Your task to perform on an android device: What's on the menu at Domino's? Image 0: 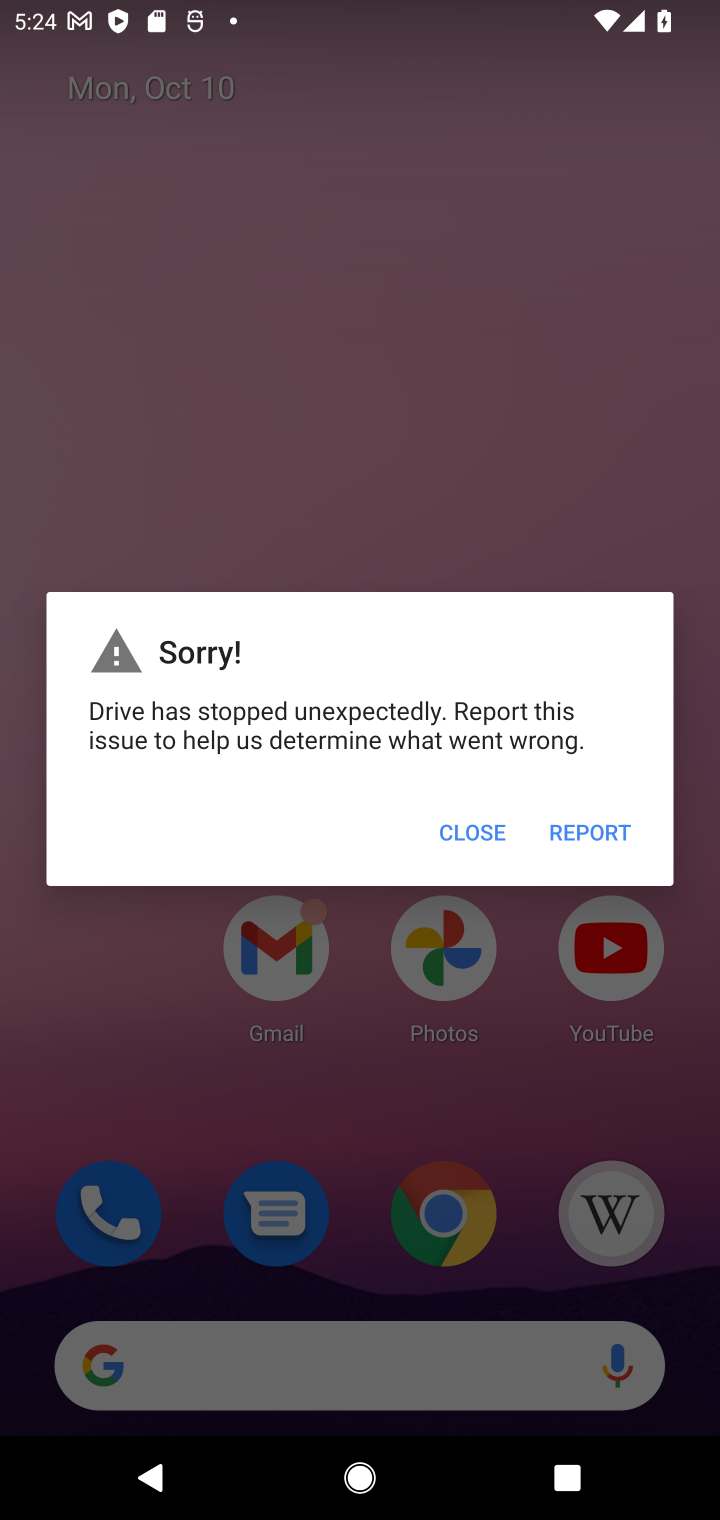
Step 0: click (470, 829)
Your task to perform on an android device: What's on the menu at Domino's? Image 1: 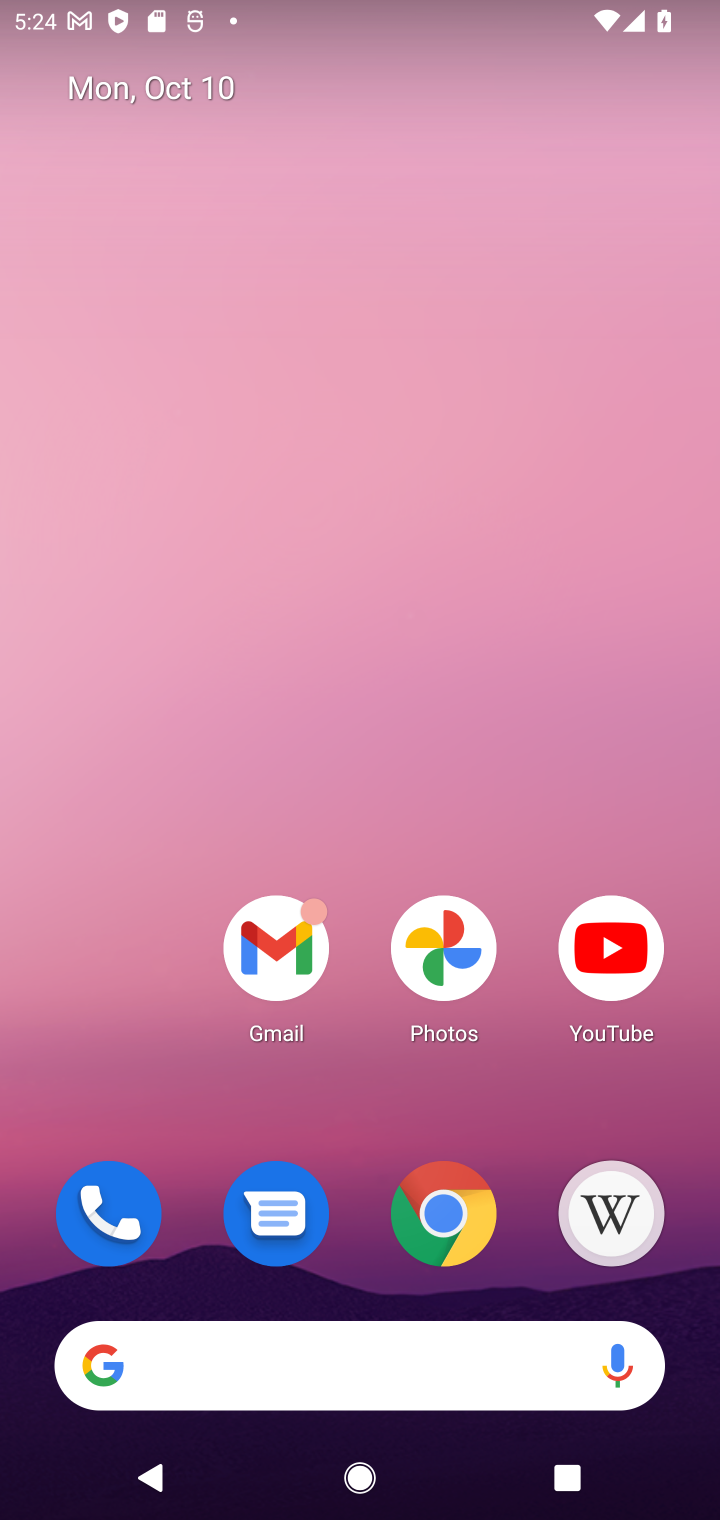
Step 1: click (470, 833)
Your task to perform on an android device: What's on the menu at Domino's? Image 2: 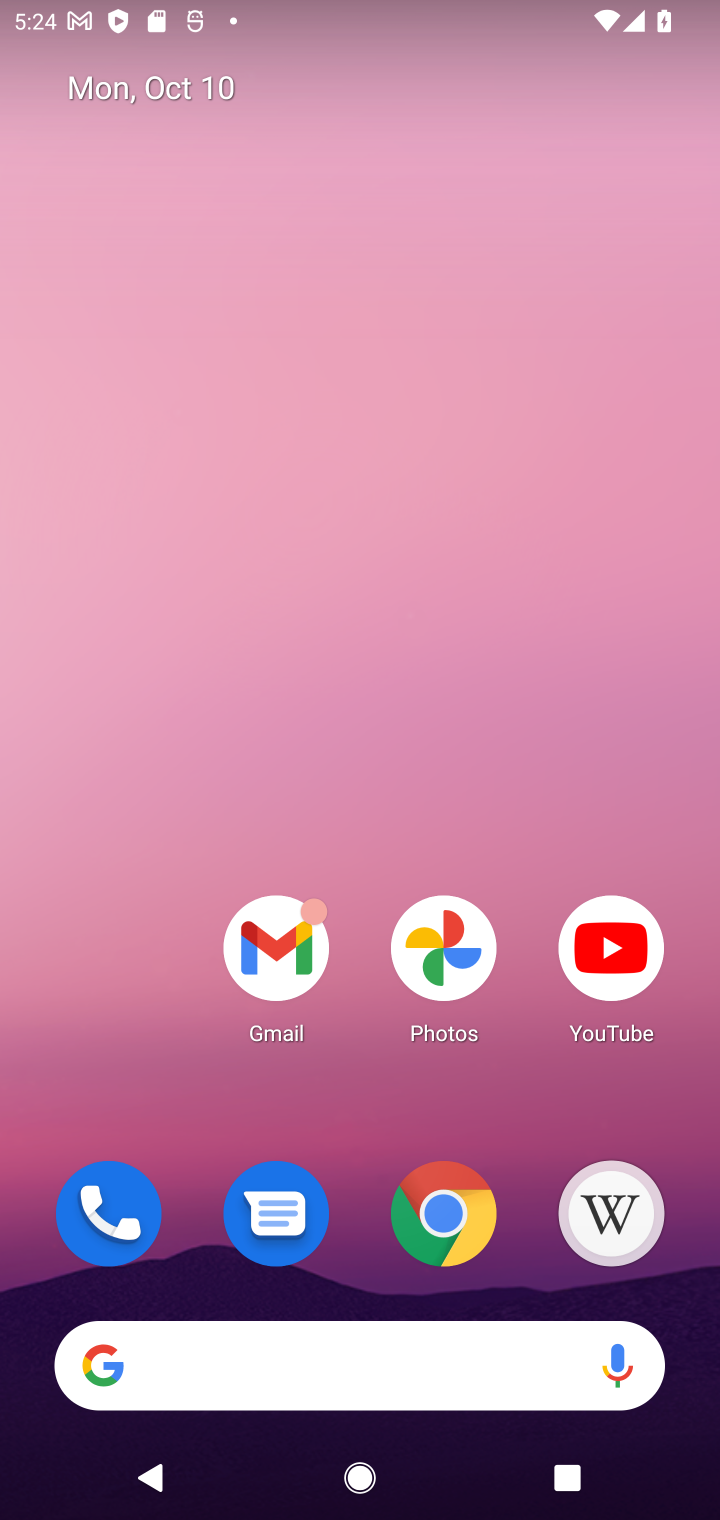
Step 2: drag from (488, 676) to (511, 142)
Your task to perform on an android device: What's on the menu at Domino's? Image 3: 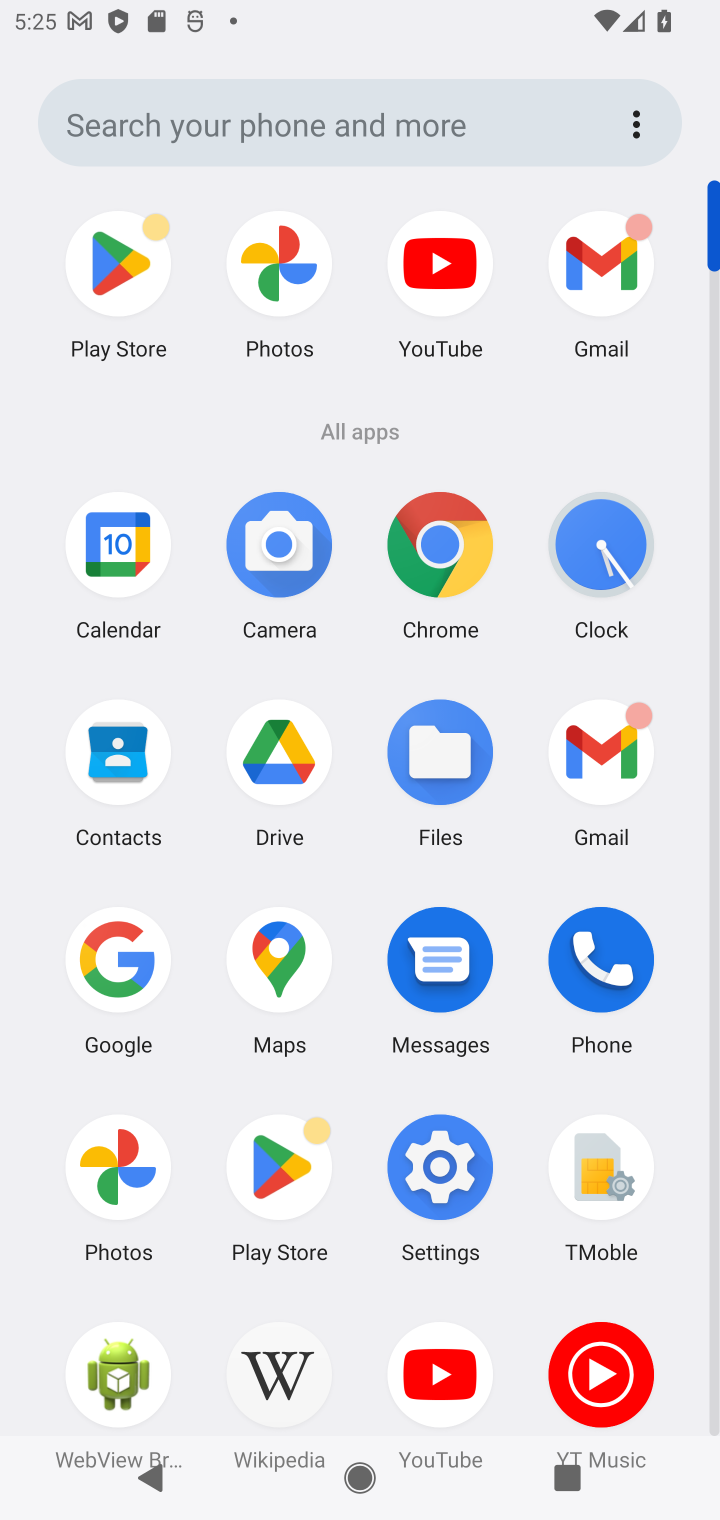
Step 3: click (126, 968)
Your task to perform on an android device: What's on the menu at Domino's? Image 4: 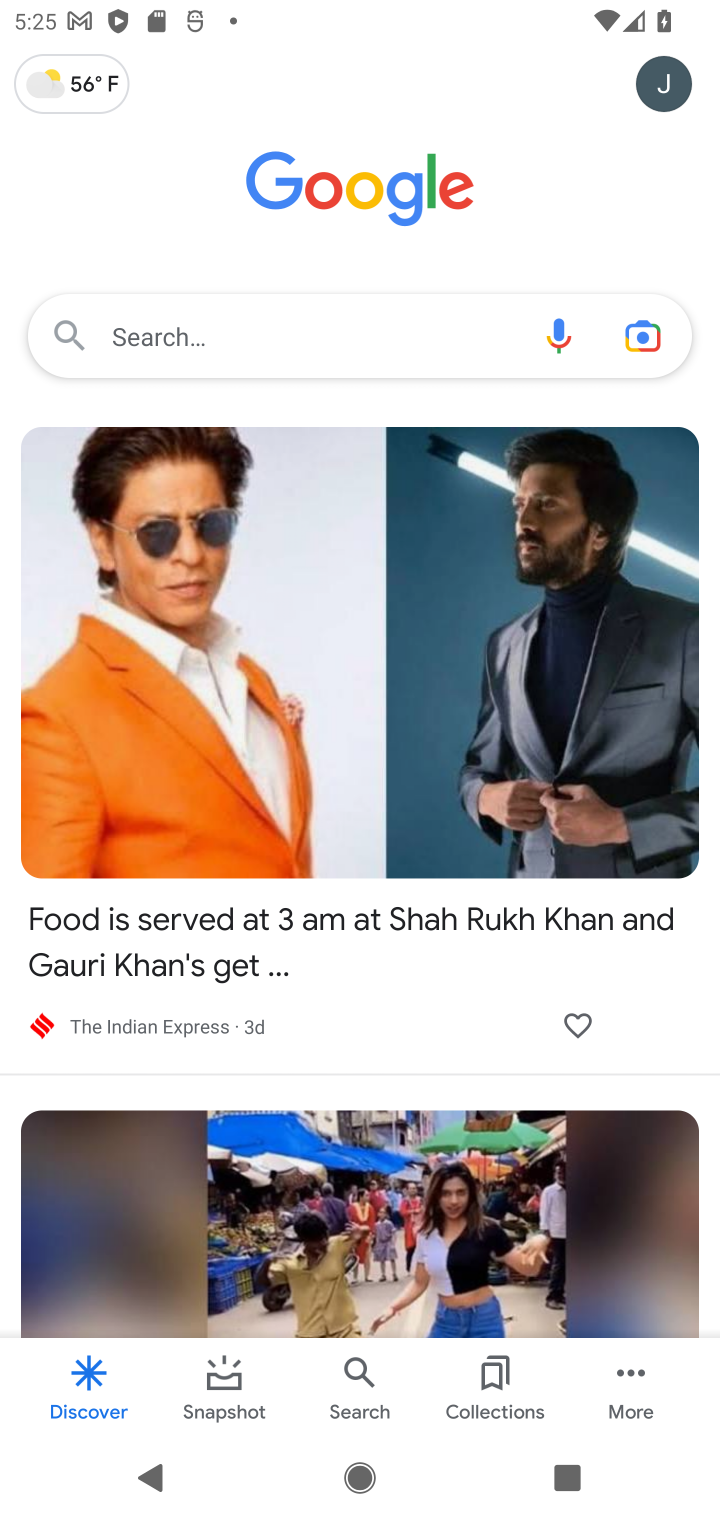
Step 4: click (301, 354)
Your task to perform on an android device: What's on the menu at Domino's? Image 5: 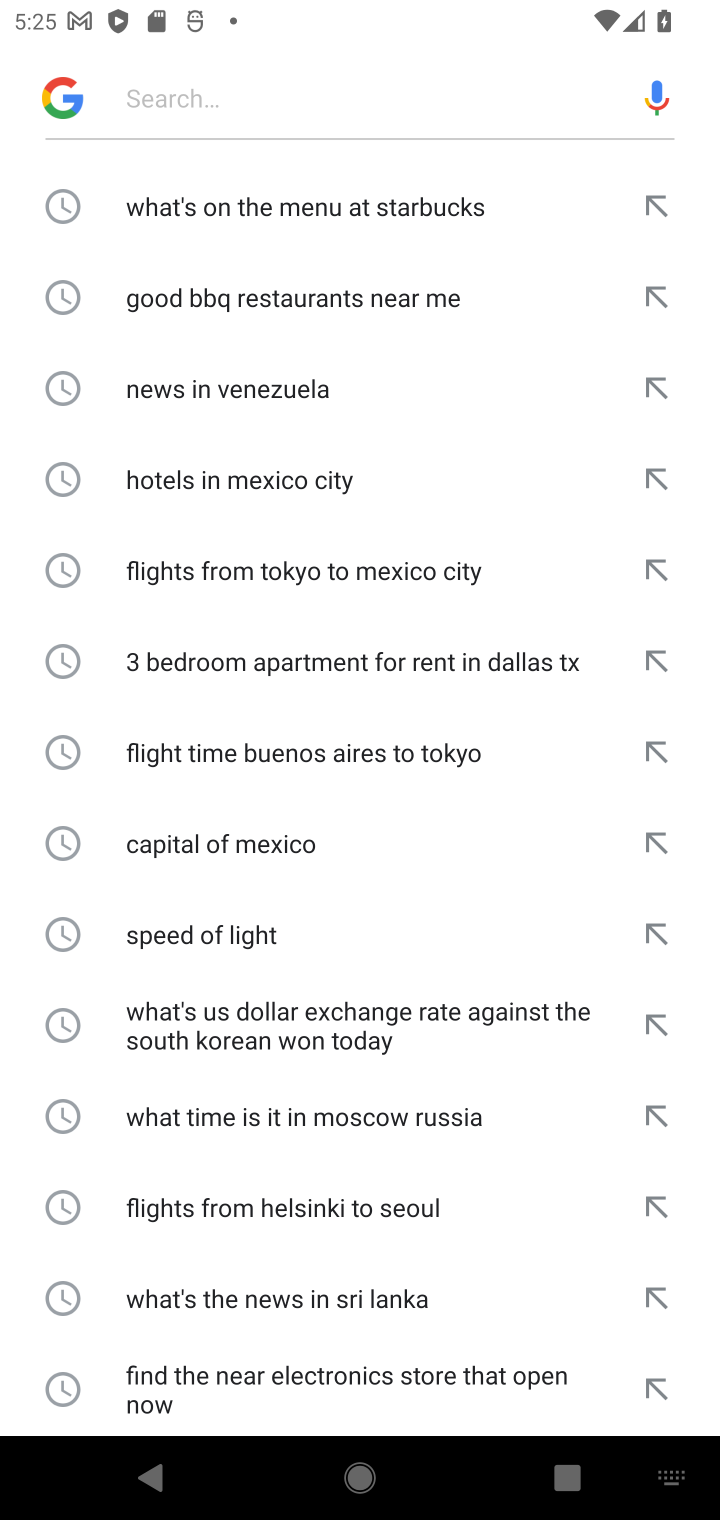
Step 5: type "What's on the menu at Domino's"
Your task to perform on an android device: What's on the menu at Domino's? Image 6: 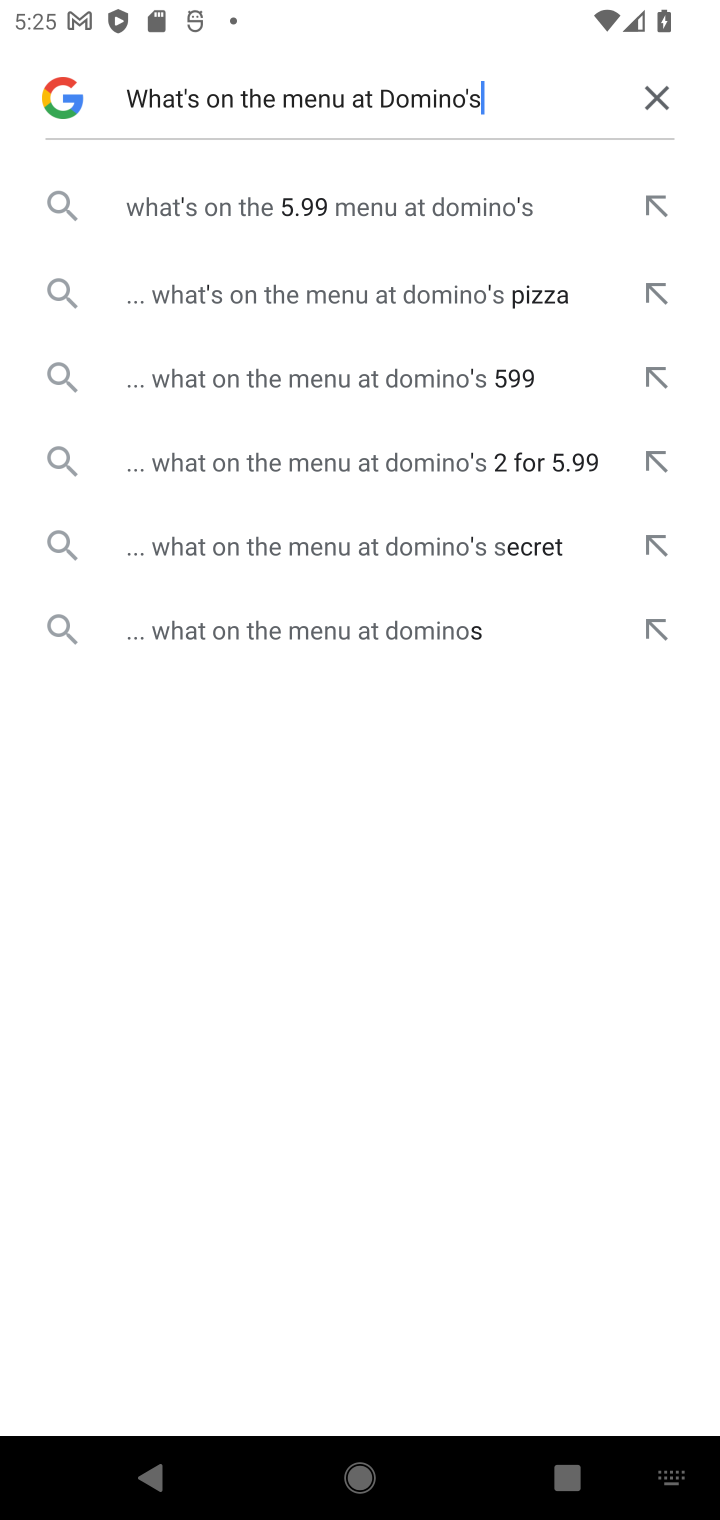
Step 6: click (367, 304)
Your task to perform on an android device: What's on the menu at Domino's? Image 7: 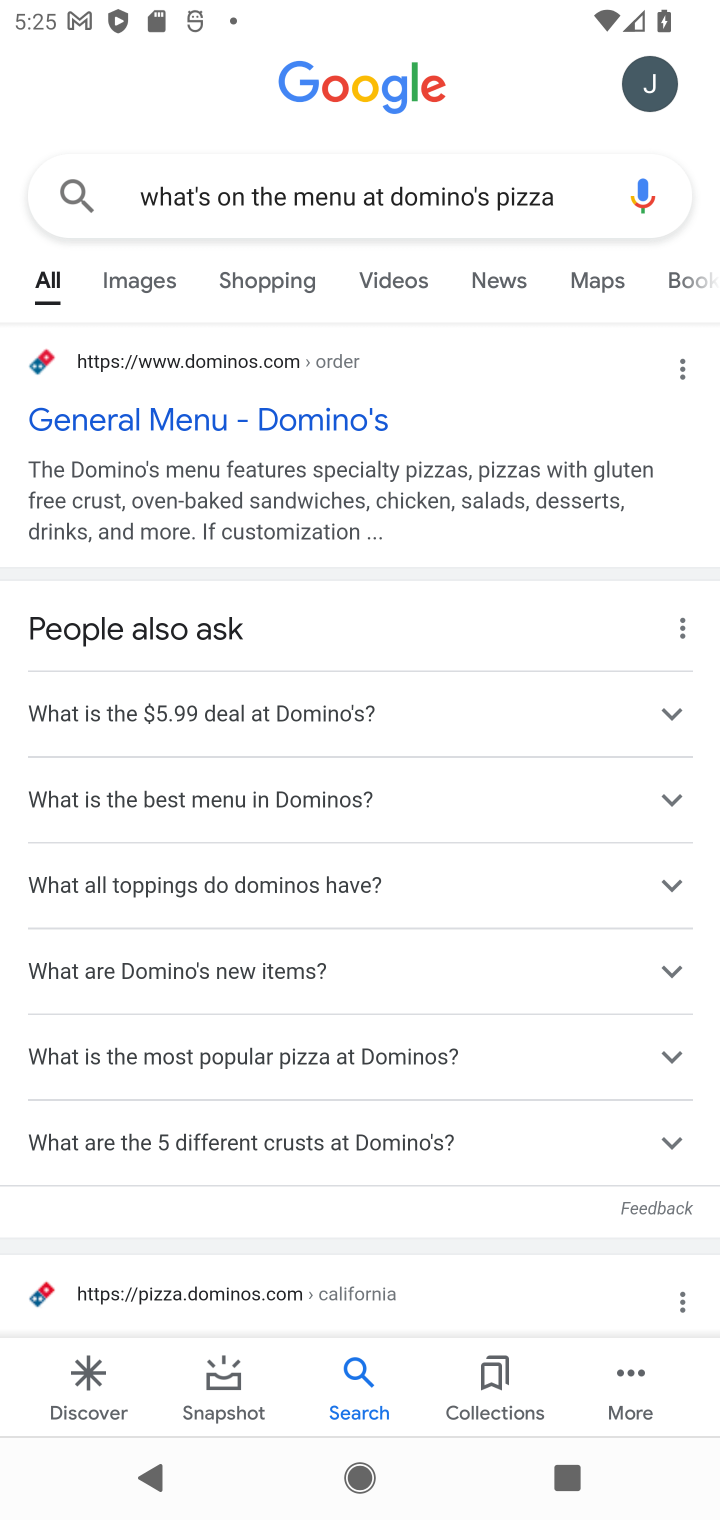
Step 7: drag from (321, 1295) to (342, 353)
Your task to perform on an android device: What's on the menu at Domino's? Image 8: 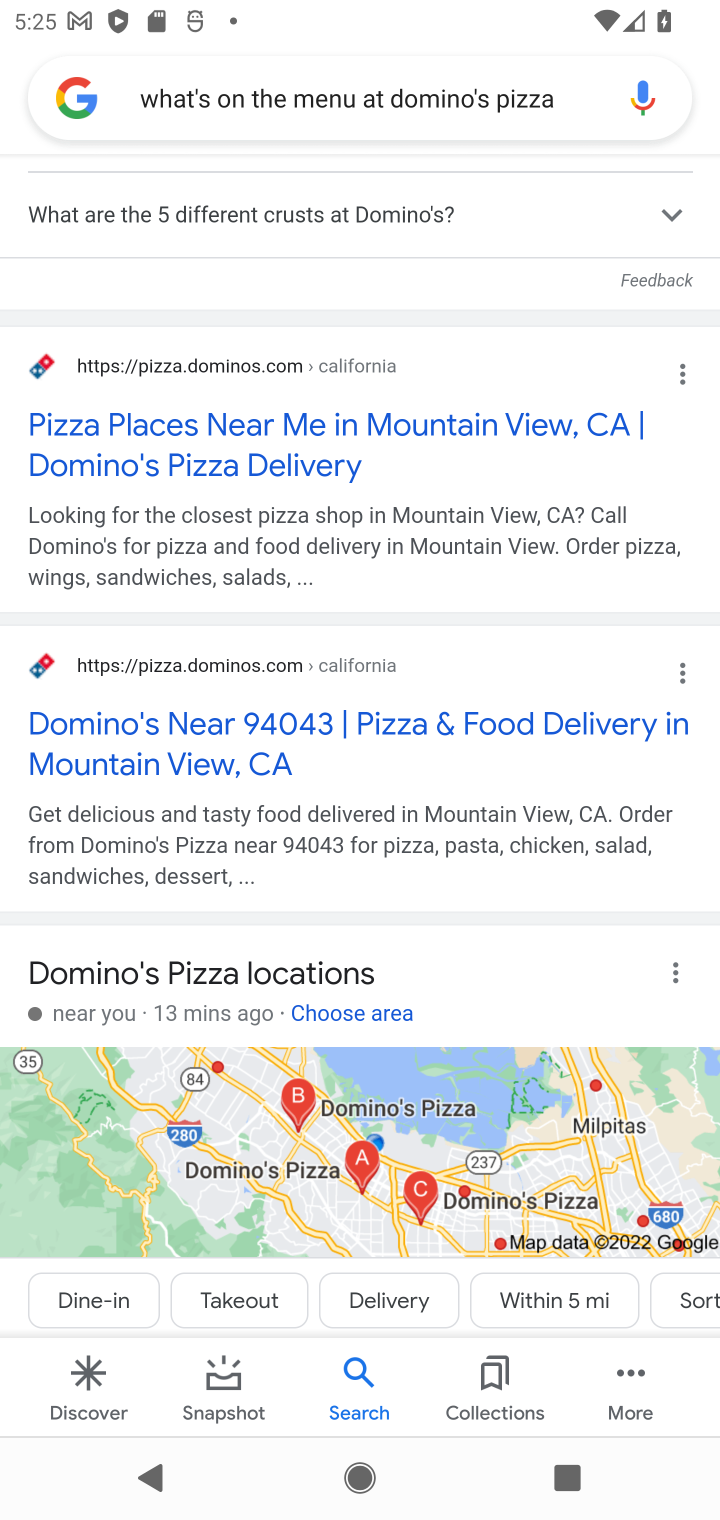
Step 8: drag from (338, 464) to (340, 1493)
Your task to perform on an android device: What's on the menu at Domino's? Image 9: 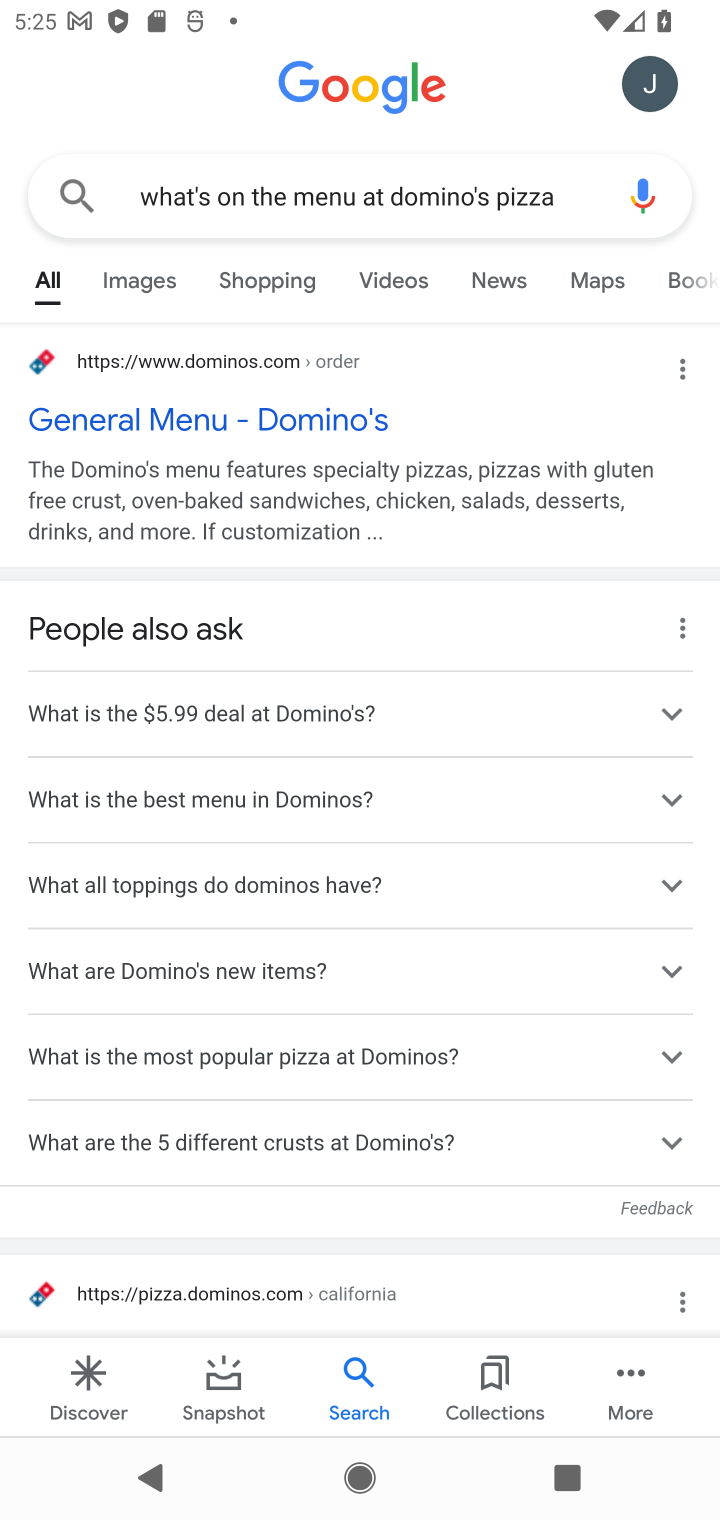
Step 9: click (195, 413)
Your task to perform on an android device: What's on the menu at Domino's? Image 10: 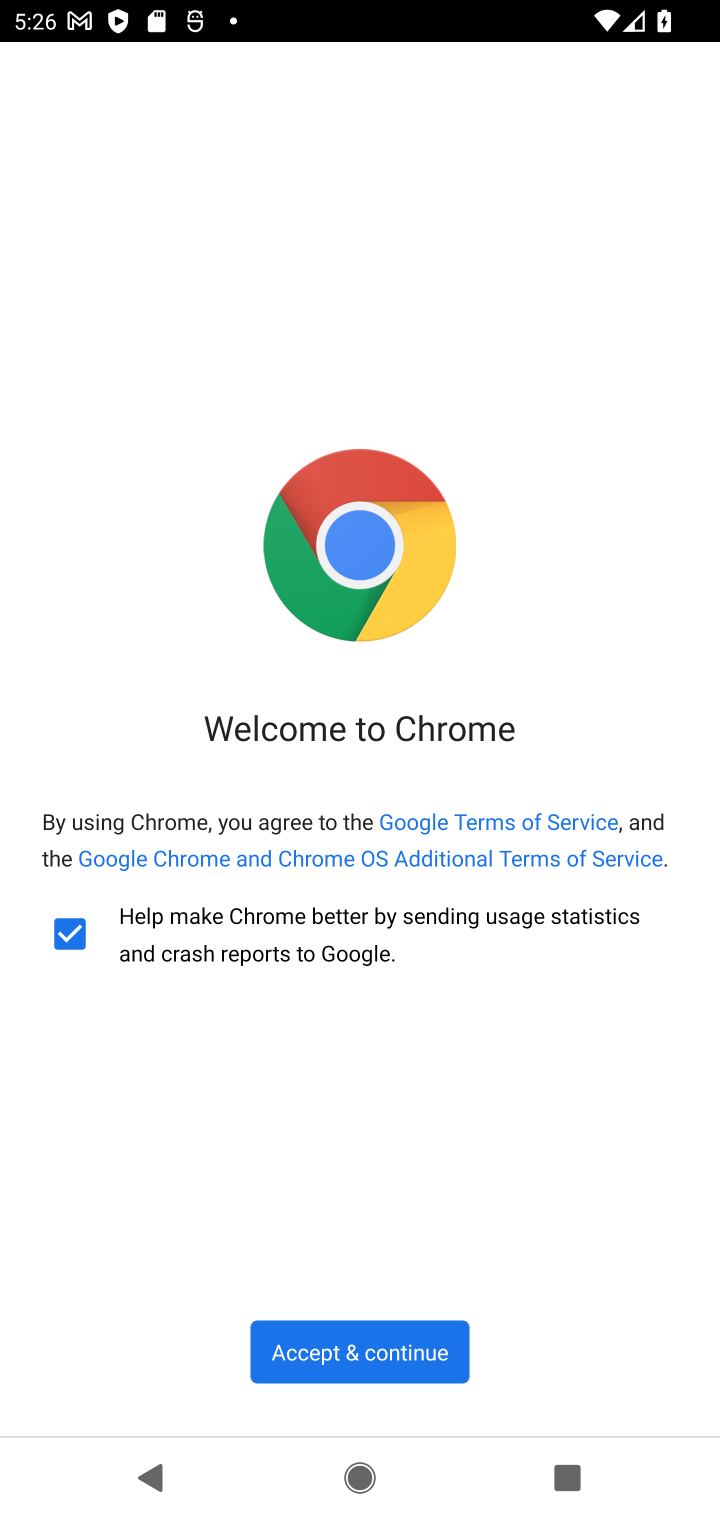
Step 10: click (396, 1365)
Your task to perform on an android device: What's on the menu at Domino's? Image 11: 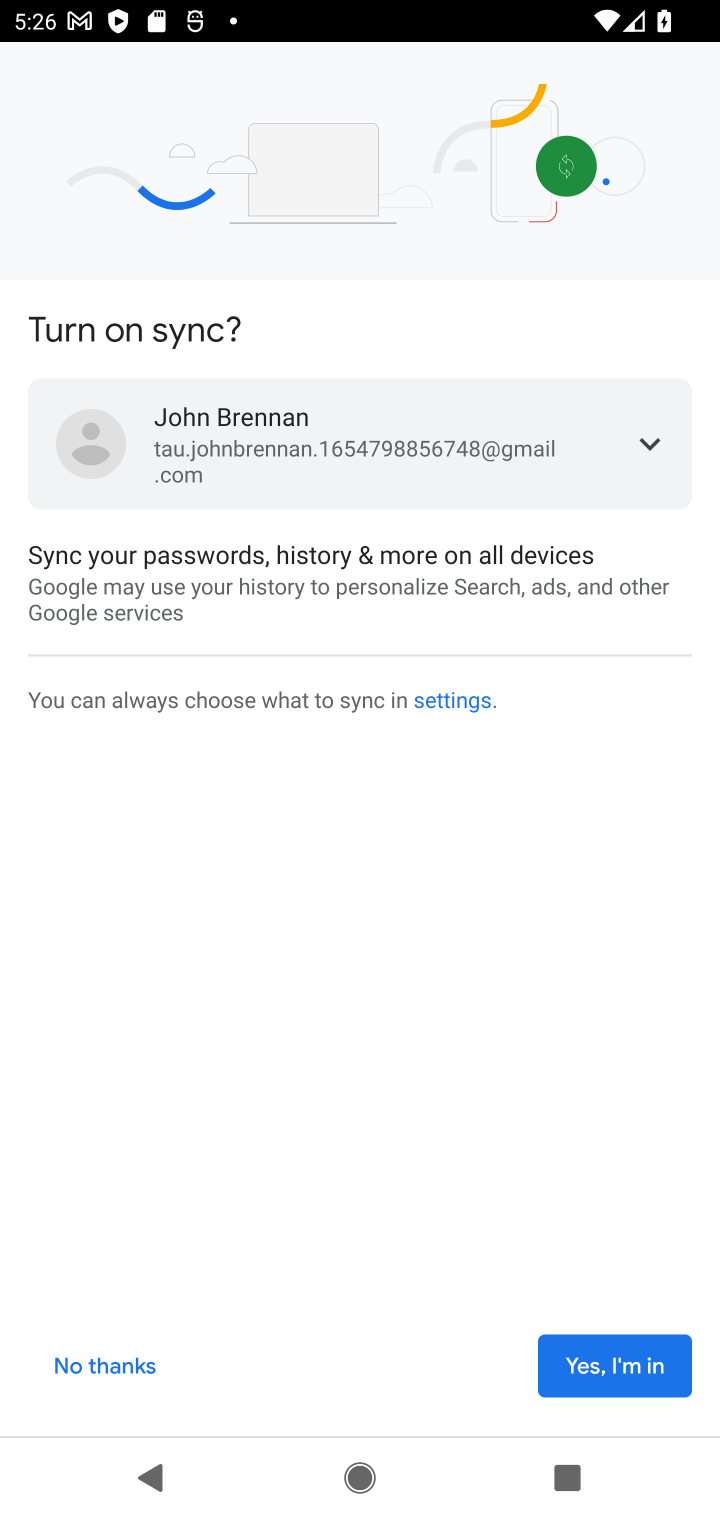
Step 11: click (637, 1367)
Your task to perform on an android device: What's on the menu at Domino's? Image 12: 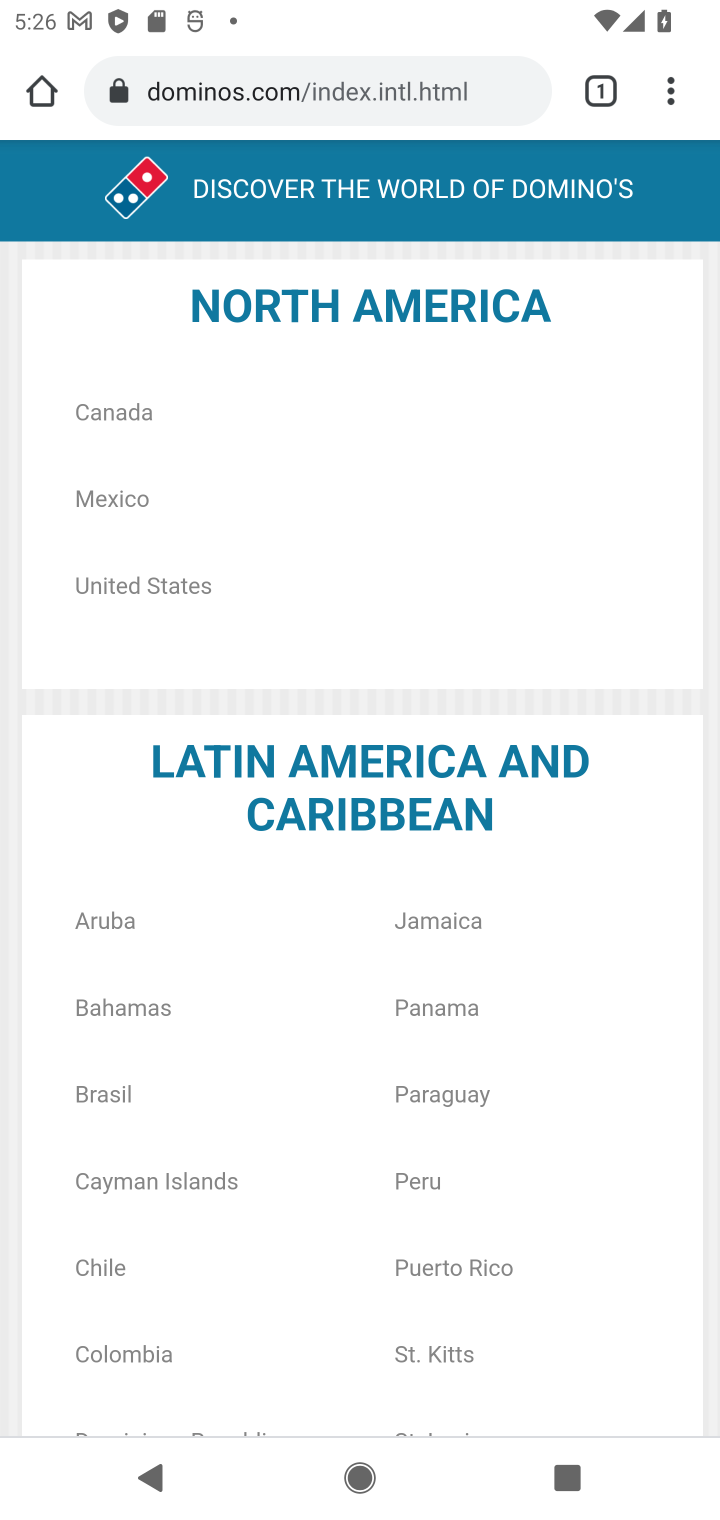
Step 12: task complete